Your task to perform on an android device: Where can I buy a nice beach towel? Image 0: 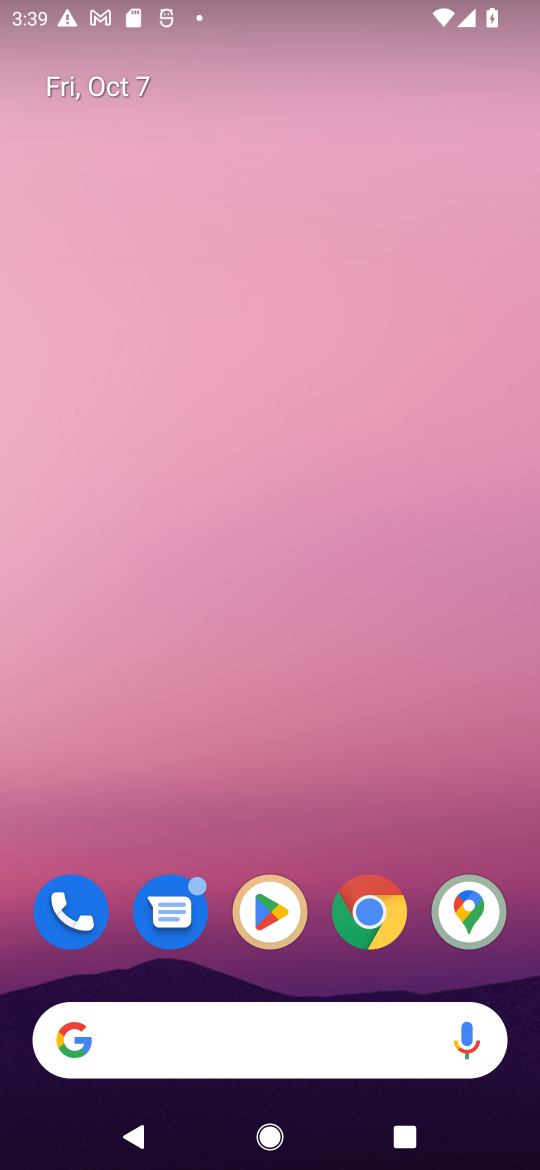
Step 0: drag from (338, 964) to (333, 150)
Your task to perform on an android device: Where can I buy a nice beach towel? Image 1: 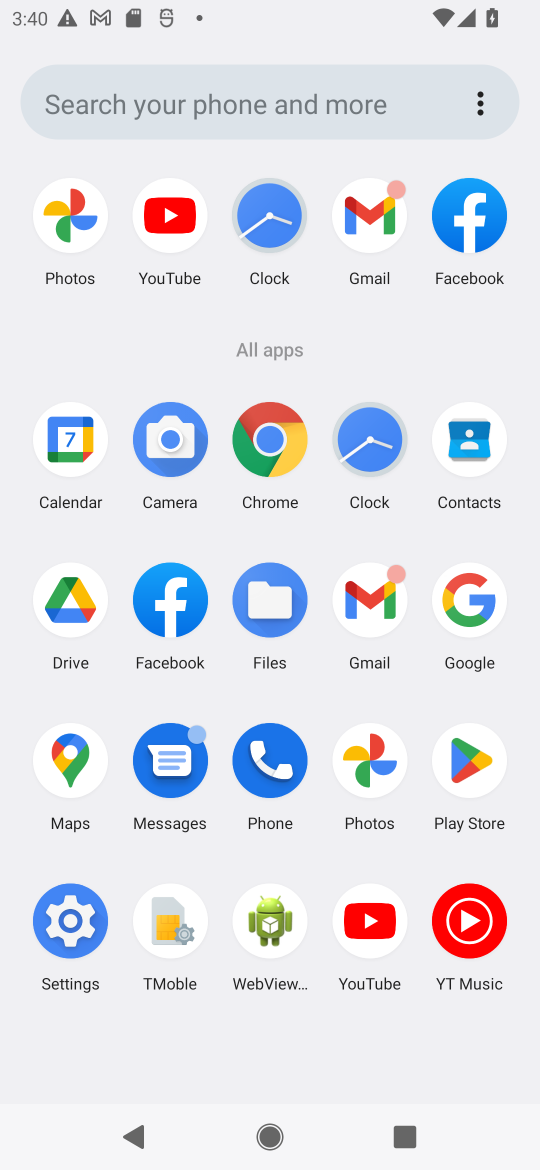
Step 1: click (478, 587)
Your task to perform on an android device: Where can I buy a nice beach towel? Image 2: 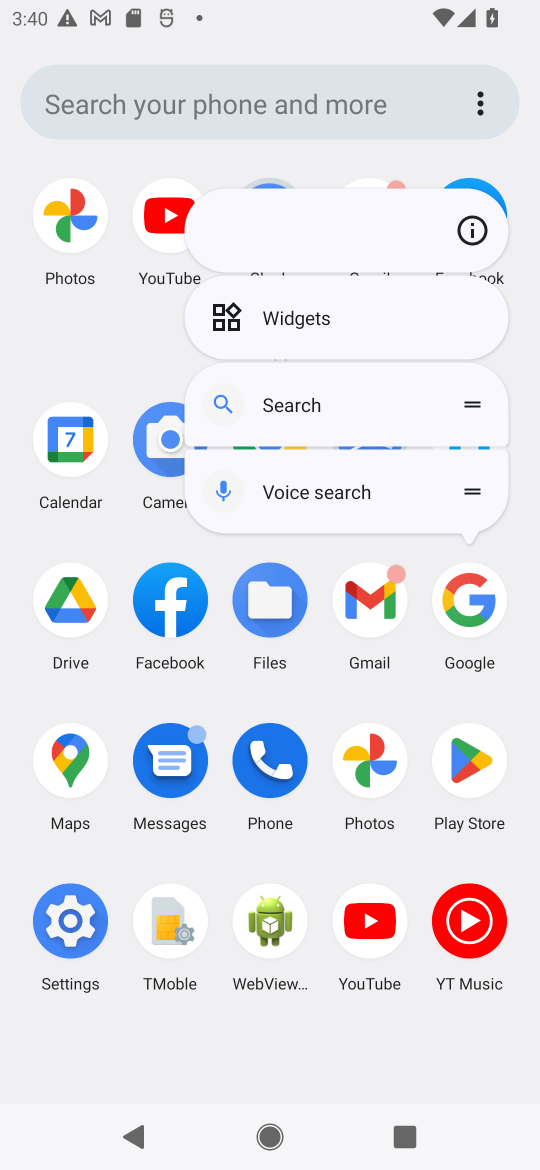
Step 2: click (490, 601)
Your task to perform on an android device: Where can I buy a nice beach towel? Image 3: 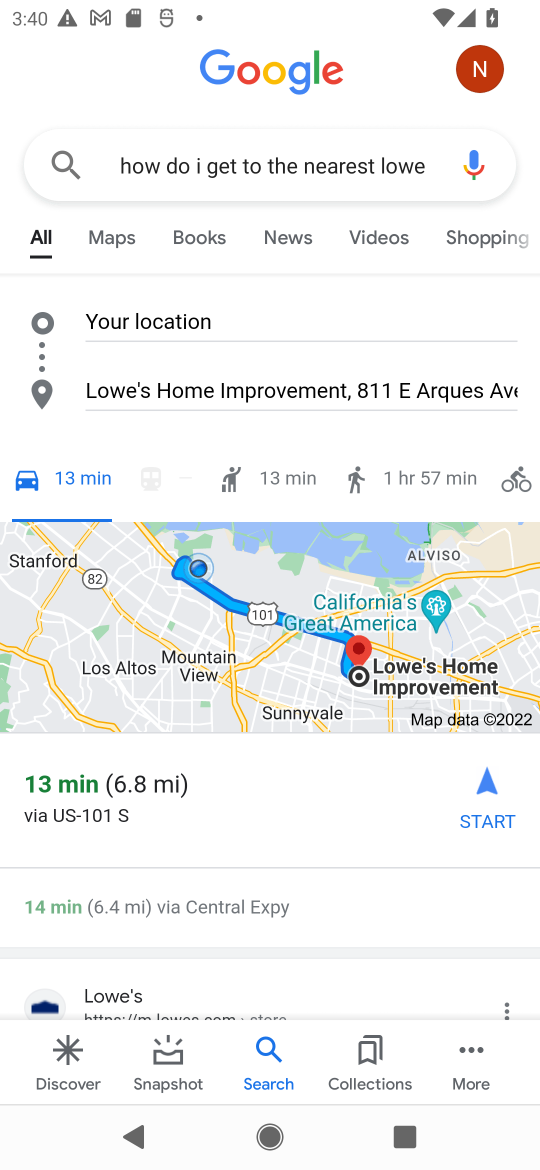
Step 3: click (365, 159)
Your task to perform on an android device: Where can I buy a nice beach towel? Image 4: 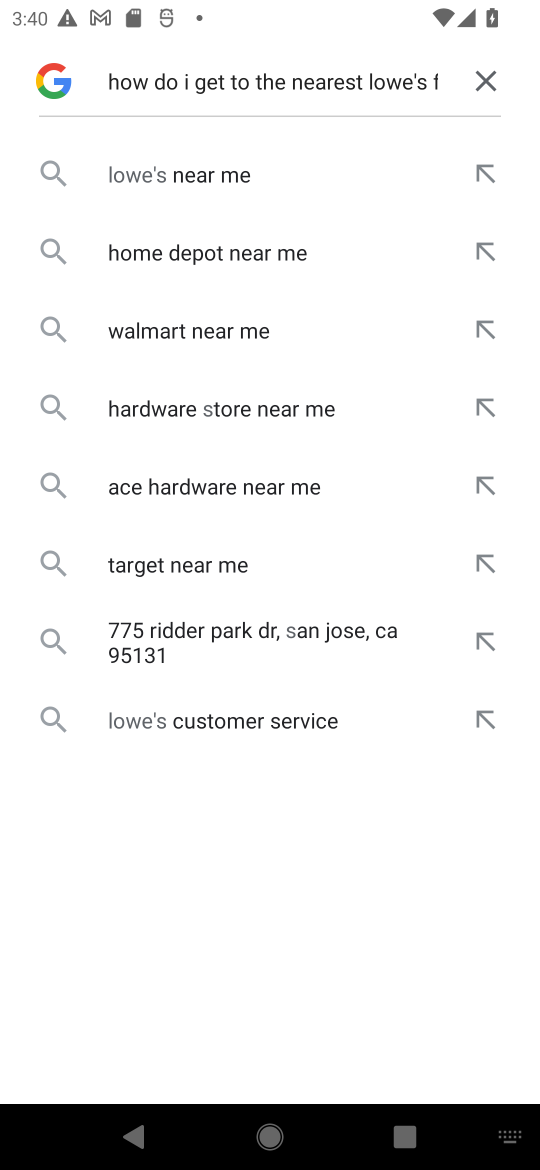
Step 4: click (486, 80)
Your task to perform on an android device: Where can I buy a nice beach towel? Image 5: 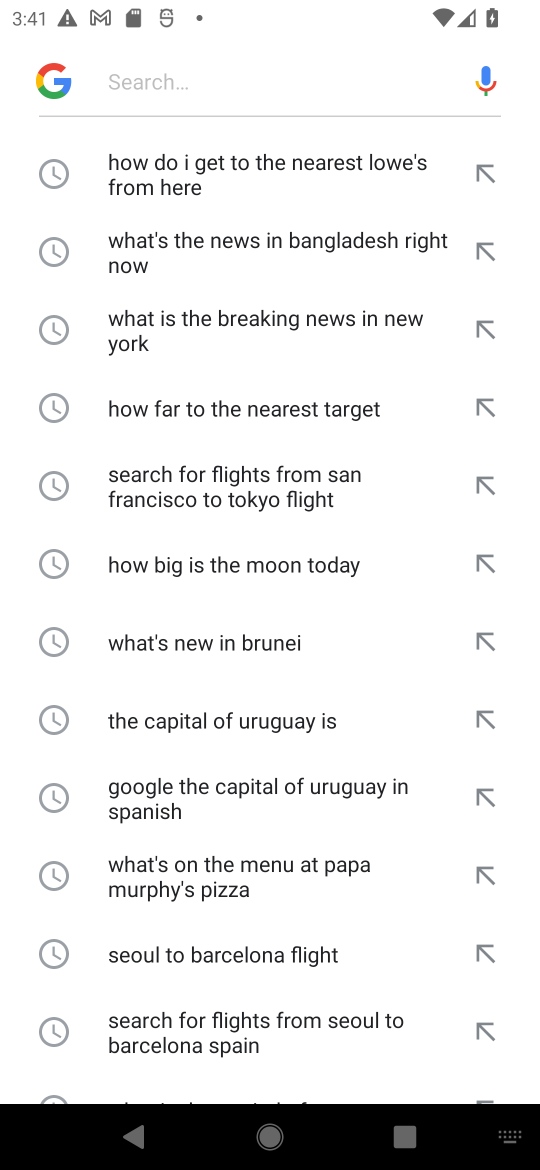
Step 5: drag from (263, 40) to (279, 99)
Your task to perform on an android device: Where can I buy a nice beach towel? Image 6: 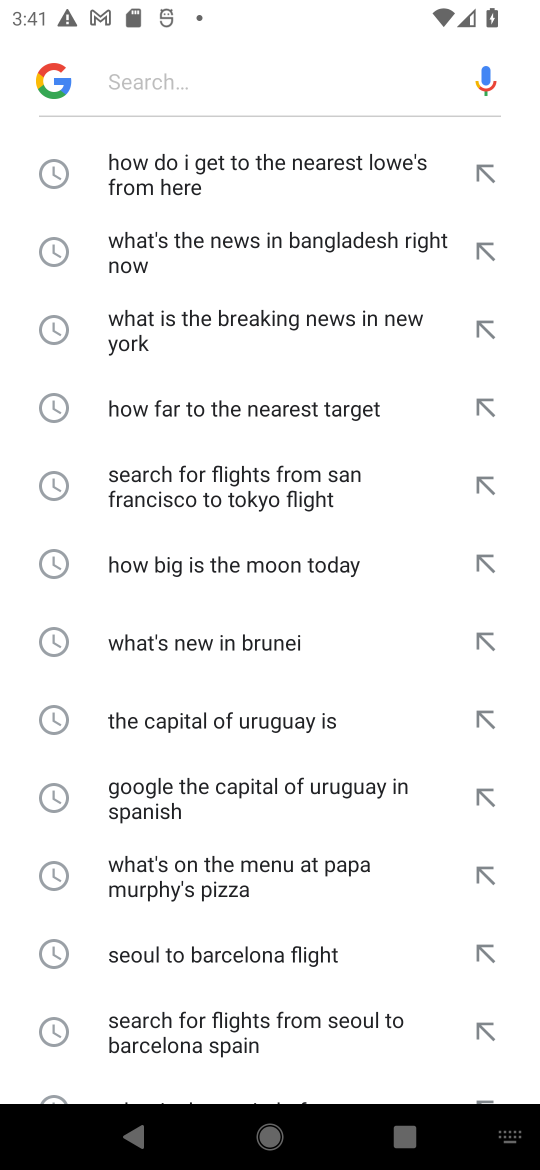
Step 6: type "Where can I buy a nice beach towel? "
Your task to perform on an android device: Where can I buy a nice beach towel? Image 7: 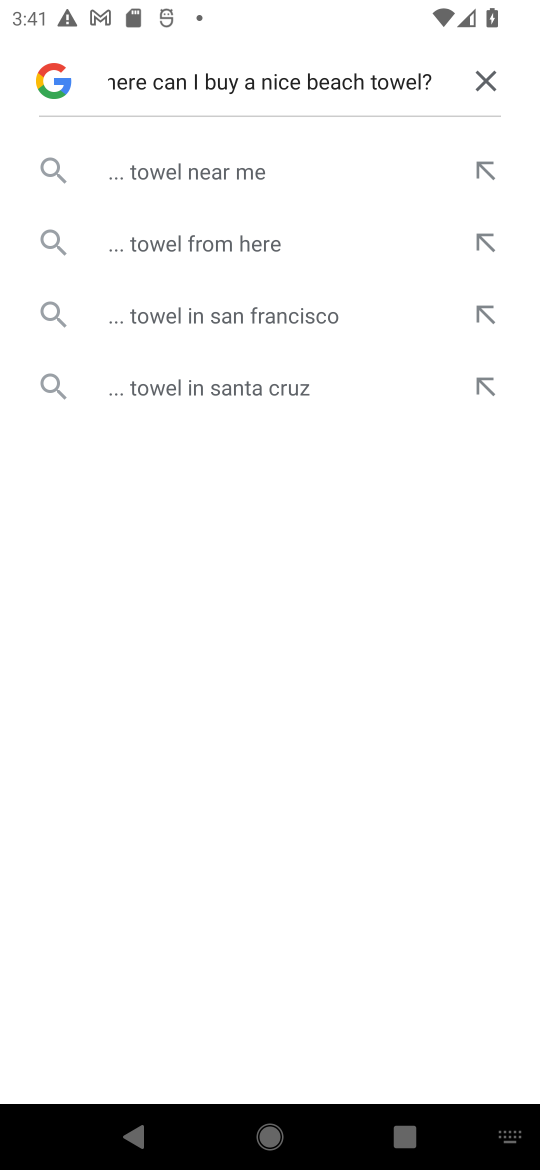
Step 7: click (241, 152)
Your task to perform on an android device: Where can I buy a nice beach towel? Image 8: 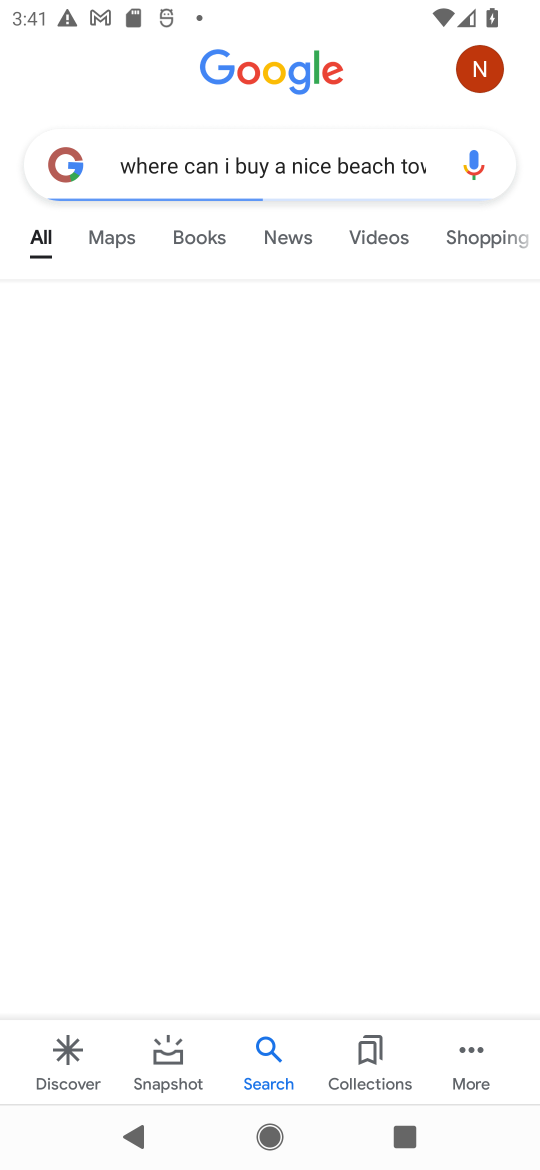
Step 8: click (241, 163)
Your task to perform on an android device: Where can I buy a nice beach towel? Image 9: 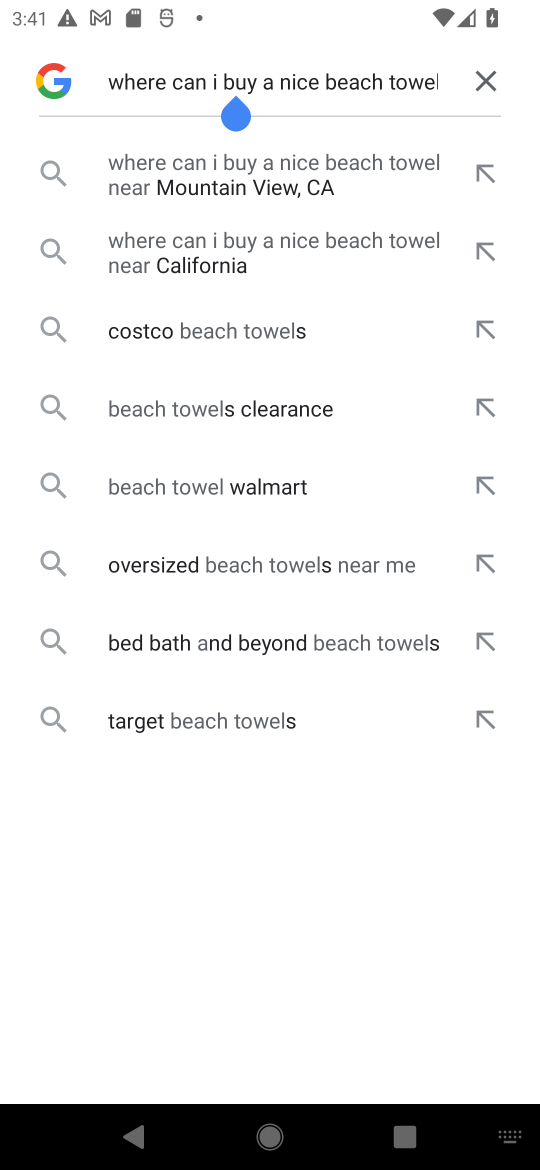
Step 9: click (269, 179)
Your task to perform on an android device: Where can I buy a nice beach towel? Image 10: 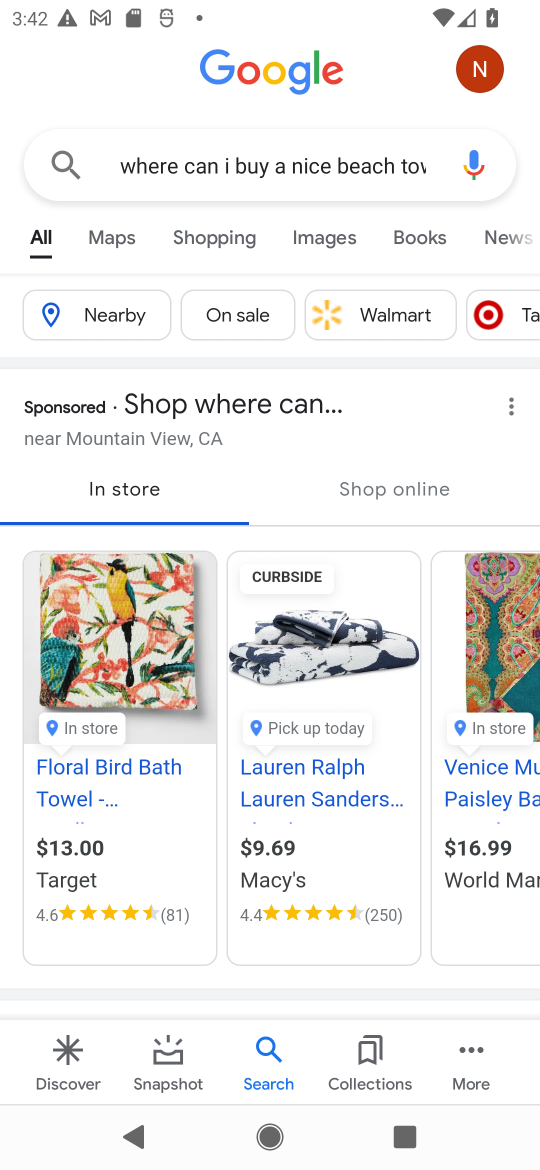
Step 10: task complete